Your task to perform on an android device: Go to network settings Image 0: 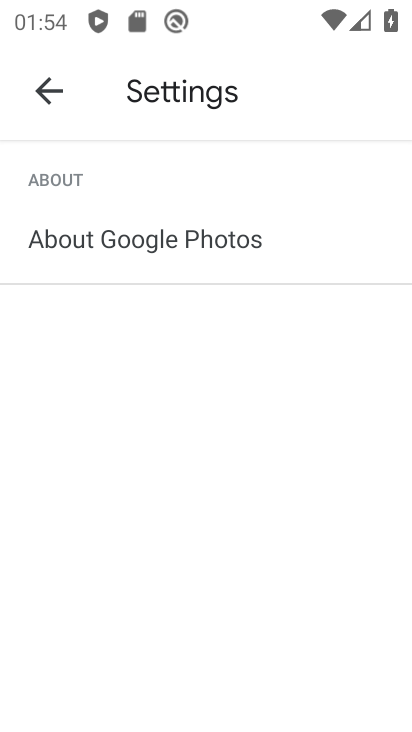
Step 0: press home button
Your task to perform on an android device: Go to network settings Image 1: 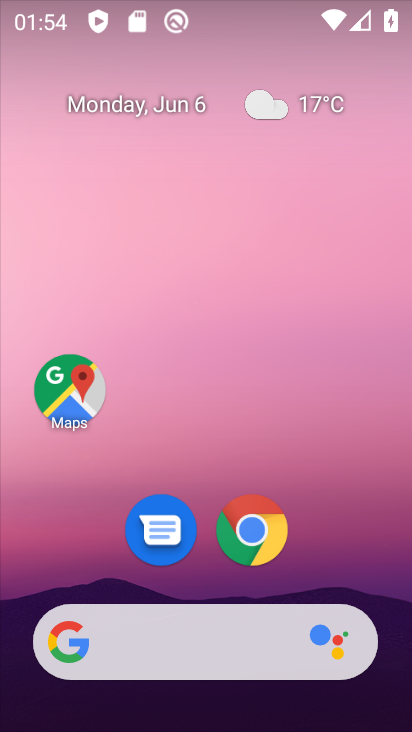
Step 1: drag from (207, 550) to (202, 186)
Your task to perform on an android device: Go to network settings Image 2: 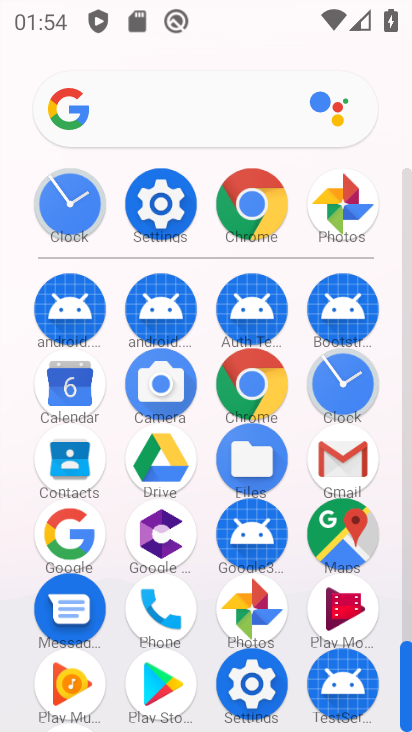
Step 2: click (163, 190)
Your task to perform on an android device: Go to network settings Image 3: 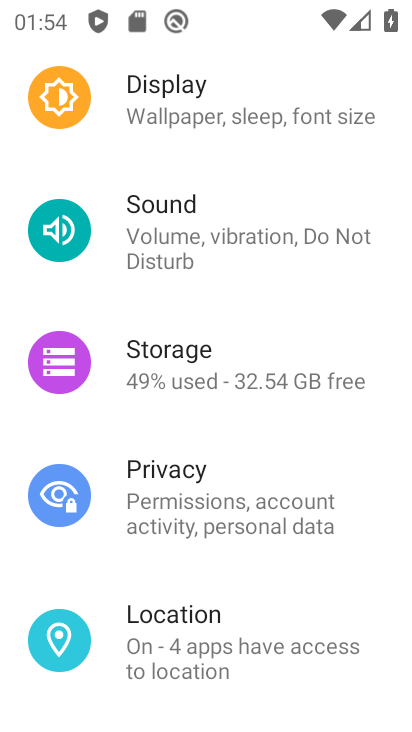
Step 3: drag from (179, 278) to (135, 579)
Your task to perform on an android device: Go to network settings Image 4: 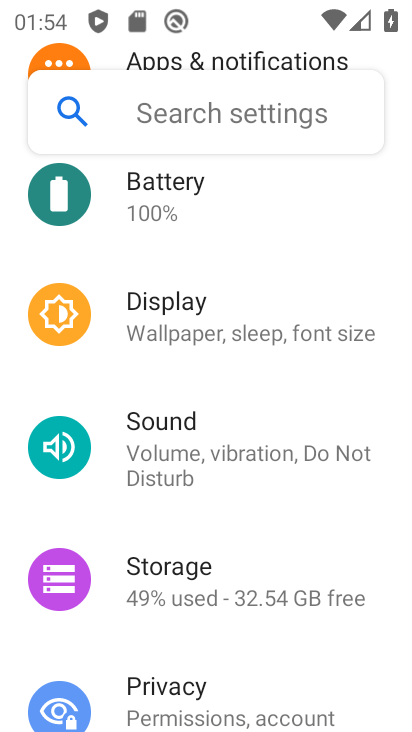
Step 4: drag from (145, 224) to (115, 584)
Your task to perform on an android device: Go to network settings Image 5: 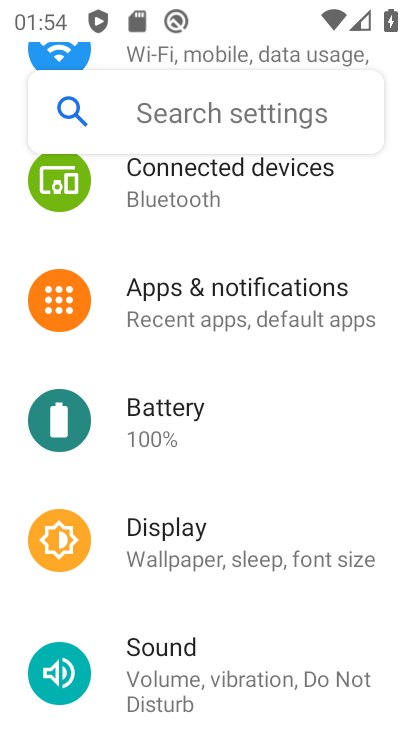
Step 5: drag from (188, 212) to (140, 647)
Your task to perform on an android device: Go to network settings Image 6: 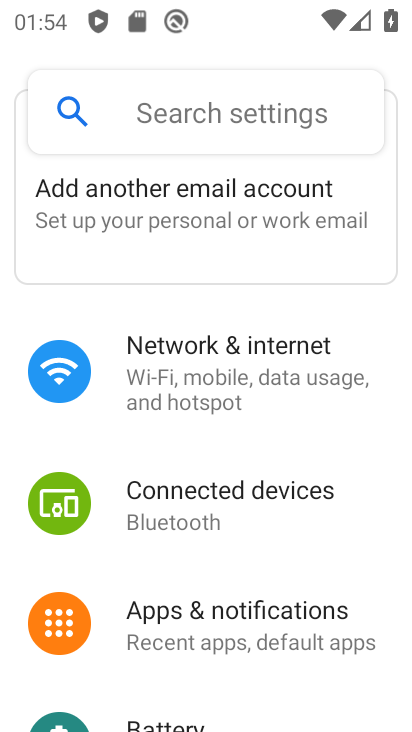
Step 6: click (193, 385)
Your task to perform on an android device: Go to network settings Image 7: 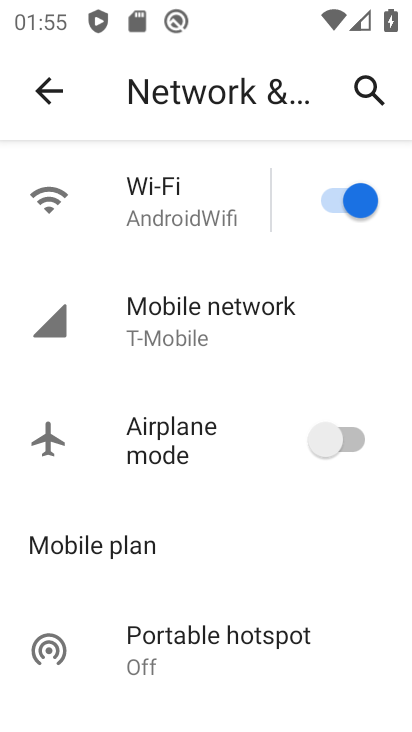
Step 7: task complete